Your task to perform on an android device: Go to network settings Image 0: 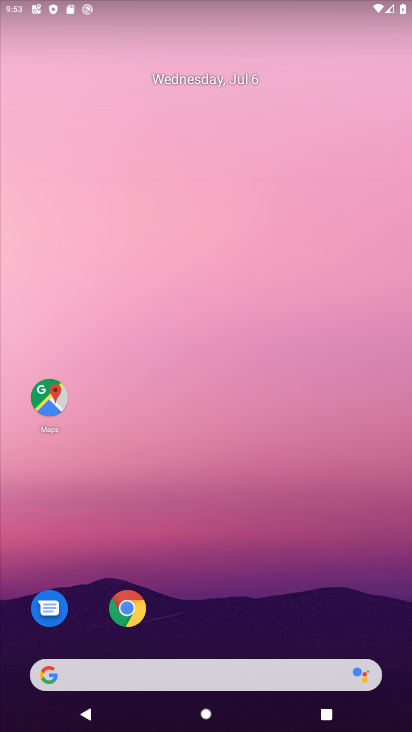
Step 0: drag from (207, 615) to (278, 0)
Your task to perform on an android device: Go to network settings Image 1: 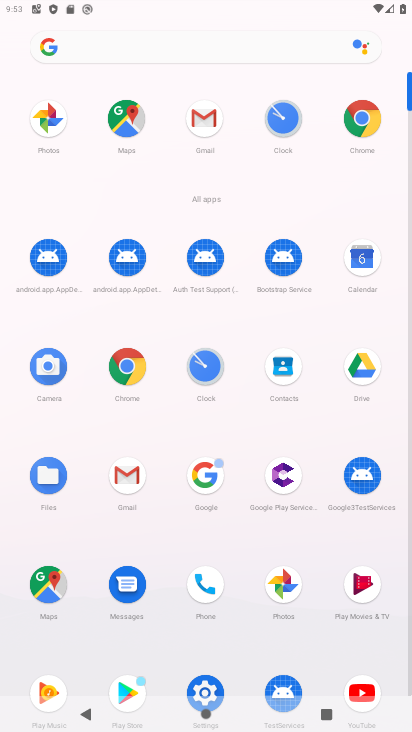
Step 1: click (208, 683)
Your task to perform on an android device: Go to network settings Image 2: 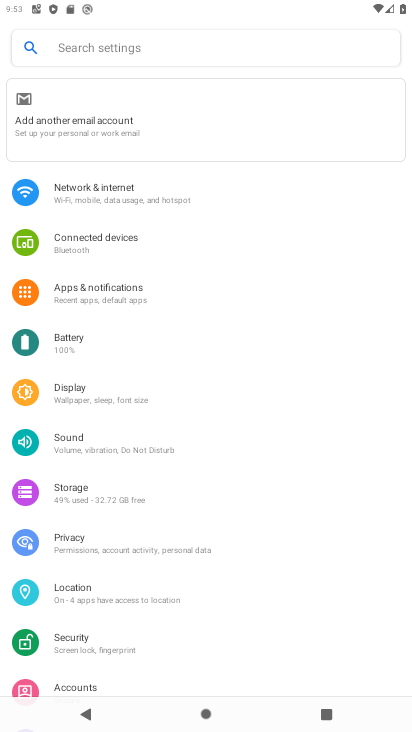
Step 2: click (136, 196)
Your task to perform on an android device: Go to network settings Image 3: 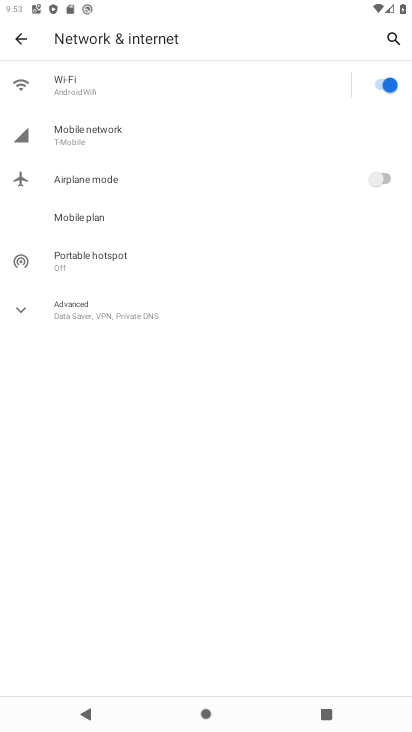
Step 3: click (126, 132)
Your task to perform on an android device: Go to network settings Image 4: 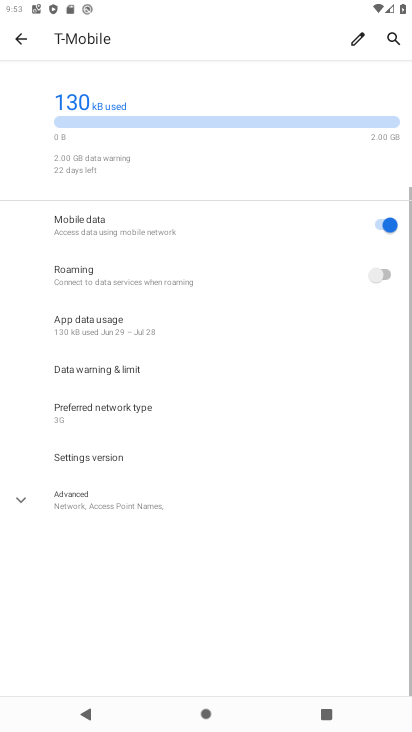
Step 4: task complete